Your task to perform on an android device: Go to Yahoo.com Image 0: 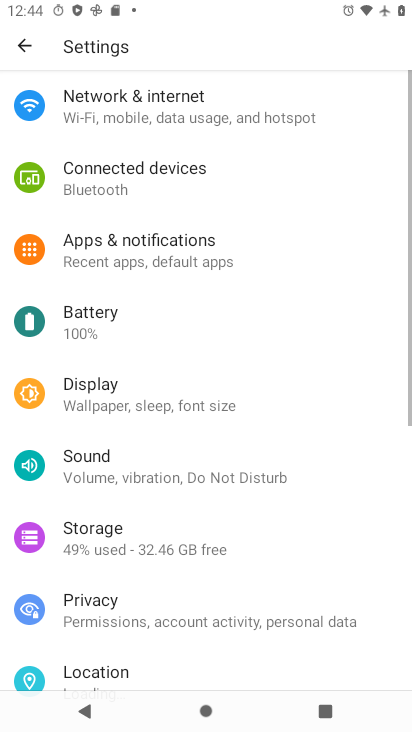
Step 0: press home button
Your task to perform on an android device: Go to Yahoo.com Image 1: 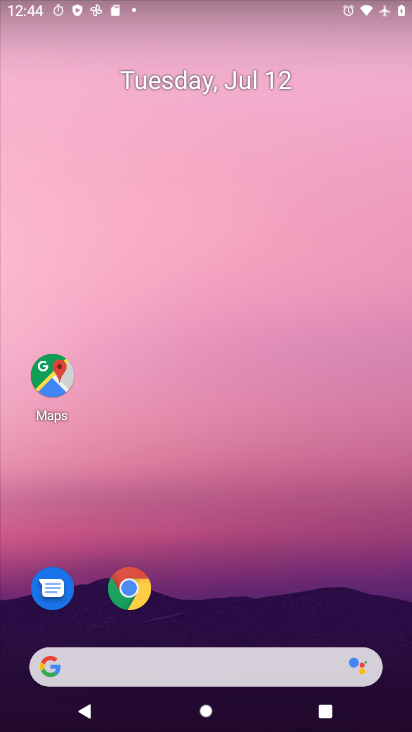
Step 1: click (136, 594)
Your task to perform on an android device: Go to Yahoo.com Image 2: 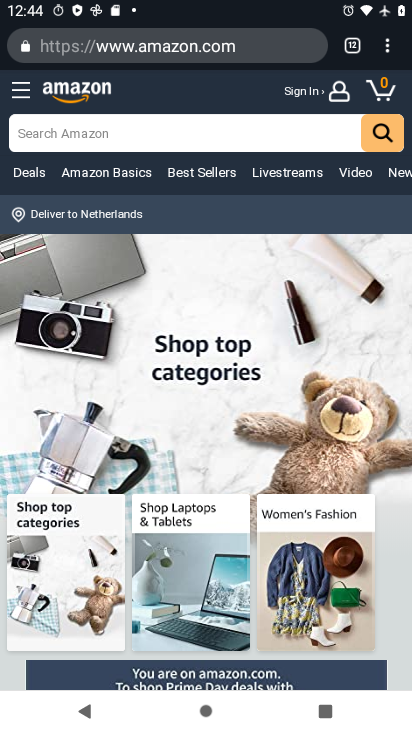
Step 2: drag from (385, 48) to (270, 97)
Your task to perform on an android device: Go to Yahoo.com Image 3: 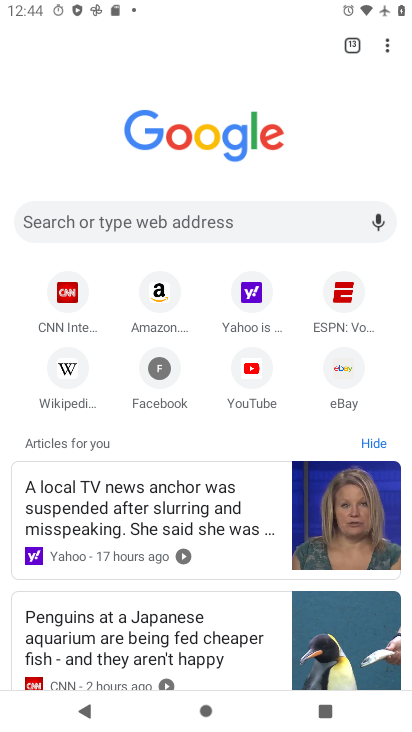
Step 3: click (242, 289)
Your task to perform on an android device: Go to Yahoo.com Image 4: 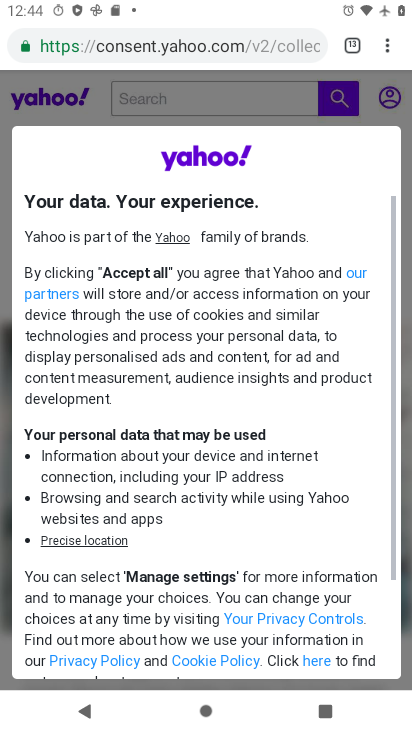
Step 4: drag from (215, 561) to (369, 185)
Your task to perform on an android device: Go to Yahoo.com Image 5: 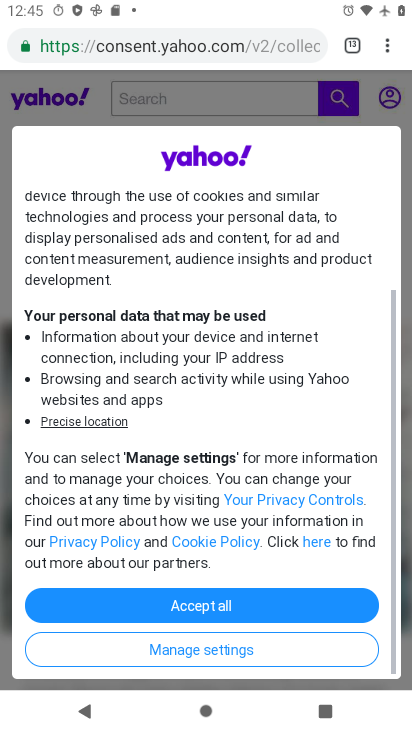
Step 5: click (226, 608)
Your task to perform on an android device: Go to Yahoo.com Image 6: 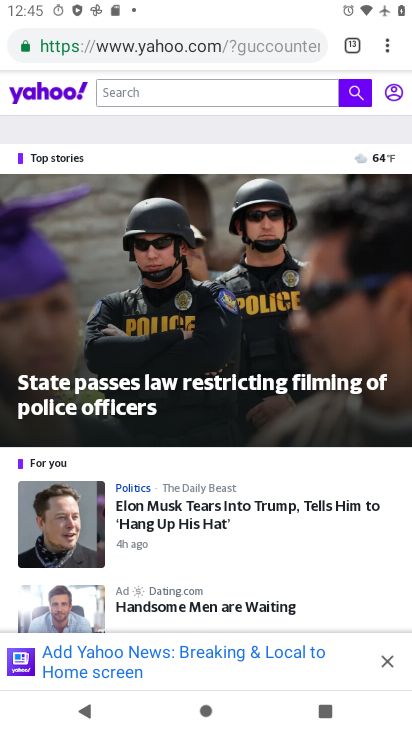
Step 6: task complete